Your task to perform on an android device: Open the map Image 0: 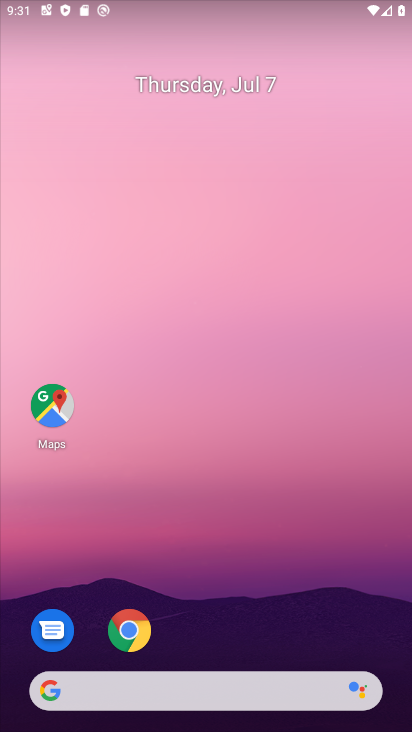
Step 0: click (55, 413)
Your task to perform on an android device: Open the map Image 1: 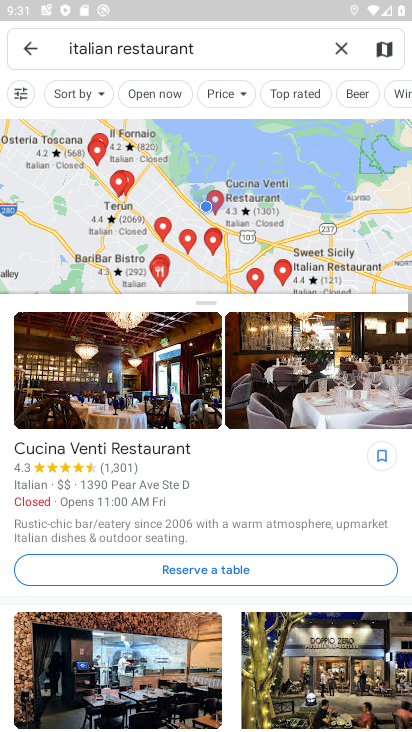
Step 1: task complete